Your task to perform on an android device: Search for Italian restaurants on Maps Image 0: 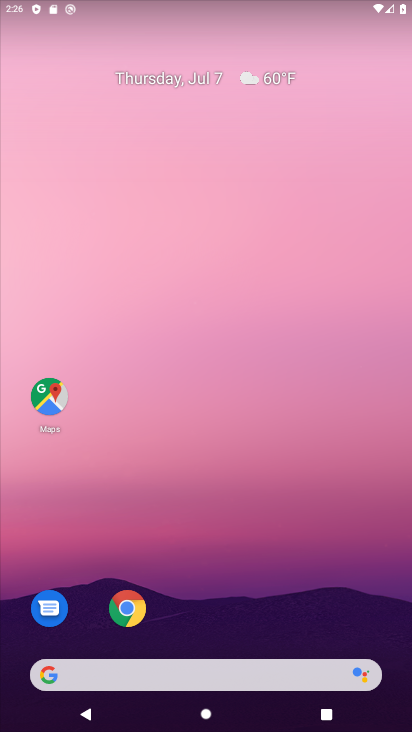
Step 0: press home button
Your task to perform on an android device: Search for Italian restaurants on Maps Image 1: 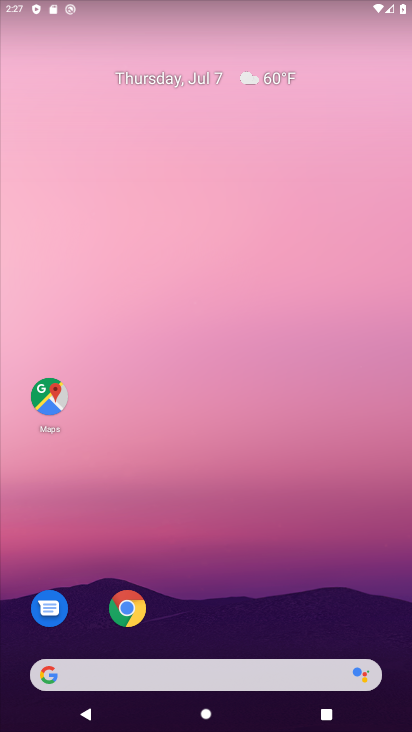
Step 1: click (53, 400)
Your task to perform on an android device: Search for Italian restaurants on Maps Image 2: 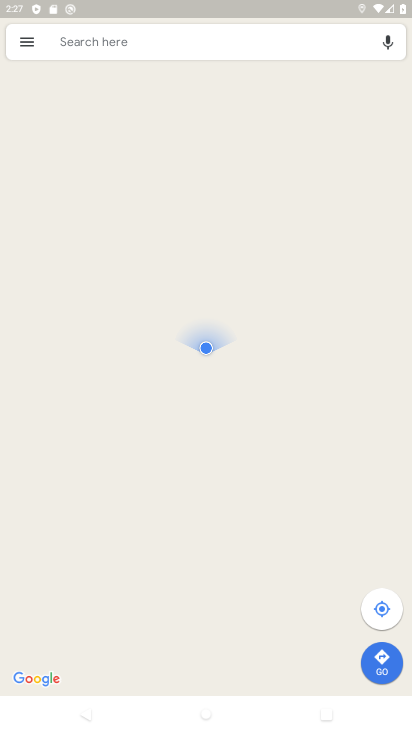
Step 2: click (81, 42)
Your task to perform on an android device: Search for Italian restaurants on Maps Image 3: 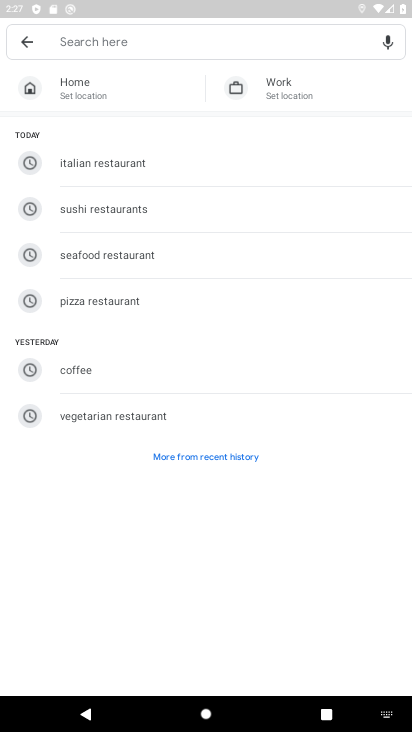
Step 3: type "itralian restaurants"
Your task to perform on an android device: Search for Italian restaurants on Maps Image 4: 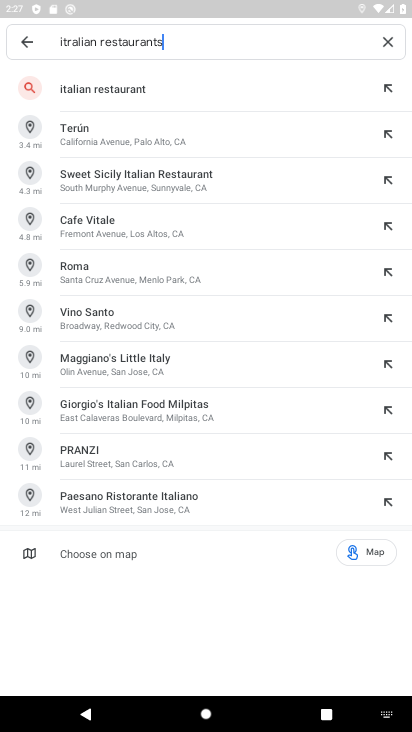
Step 4: click (109, 82)
Your task to perform on an android device: Search for Italian restaurants on Maps Image 5: 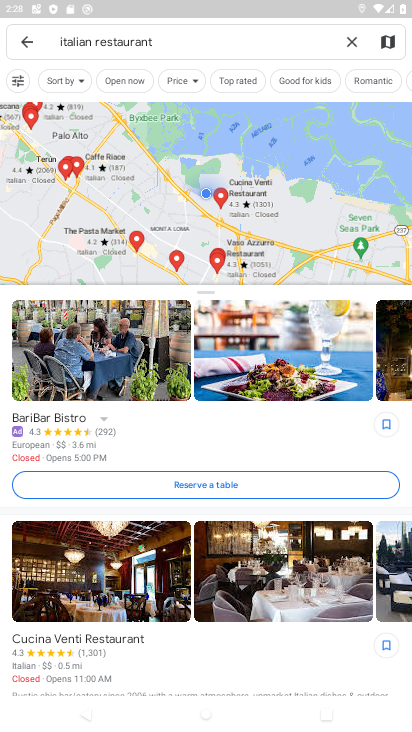
Step 5: task complete